Your task to perform on an android device: turn on location history Image 0: 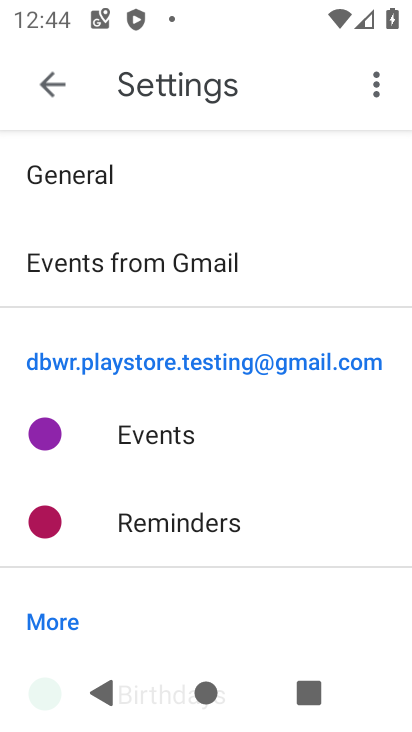
Step 0: press home button
Your task to perform on an android device: turn on location history Image 1: 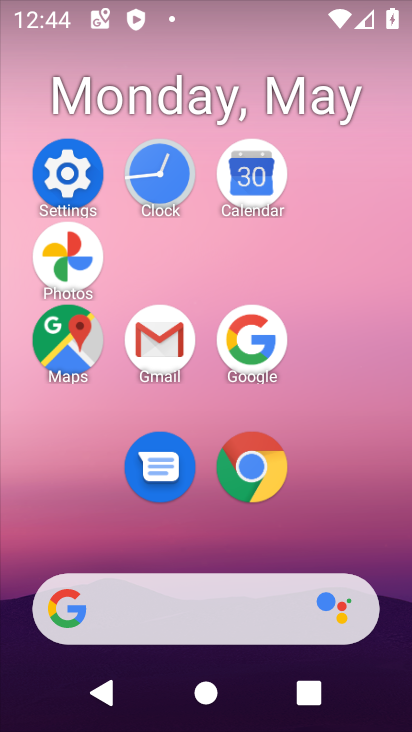
Step 1: click (43, 181)
Your task to perform on an android device: turn on location history Image 2: 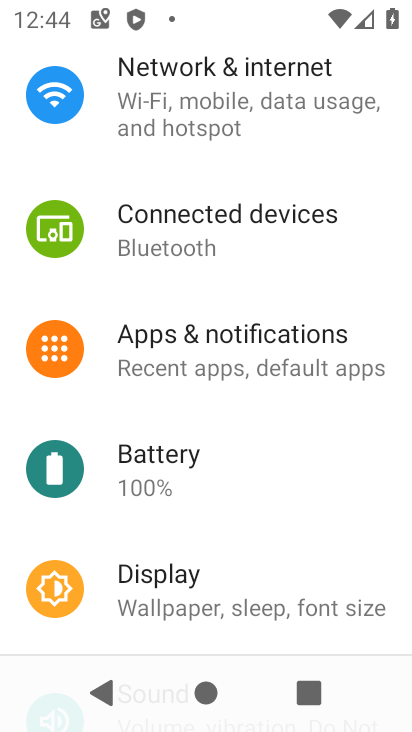
Step 2: drag from (240, 563) to (209, 171)
Your task to perform on an android device: turn on location history Image 3: 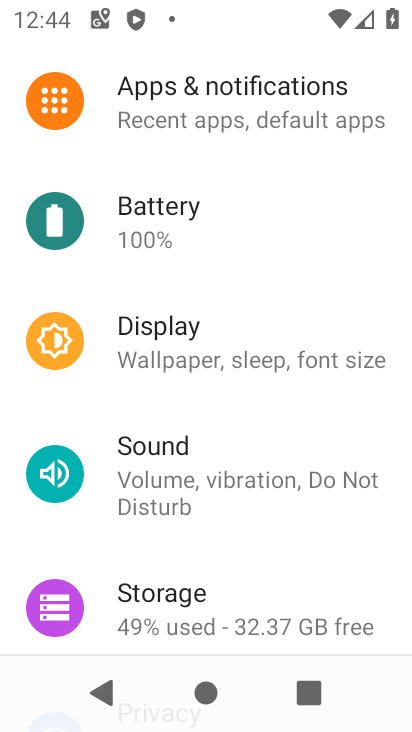
Step 3: drag from (244, 541) to (231, 147)
Your task to perform on an android device: turn on location history Image 4: 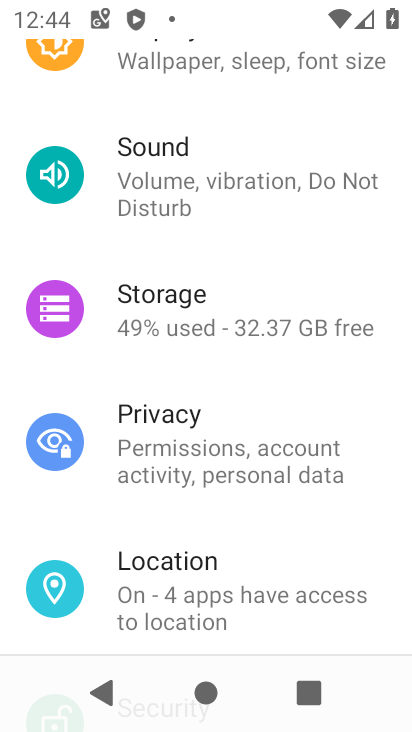
Step 4: click (208, 559)
Your task to perform on an android device: turn on location history Image 5: 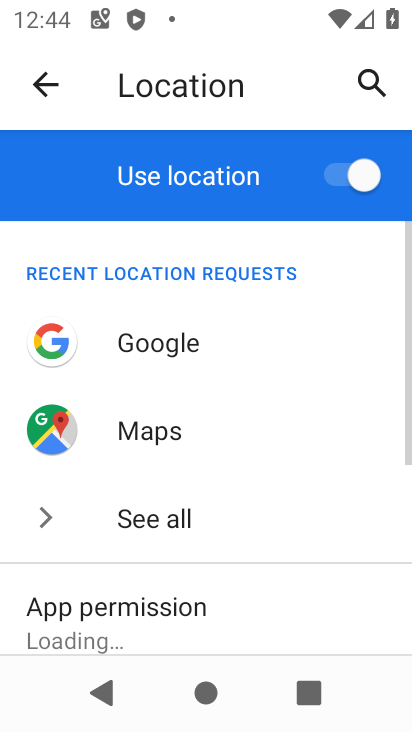
Step 5: drag from (286, 577) to (274, 154)
Your task to perform on an android device: turn on location history Image 6: 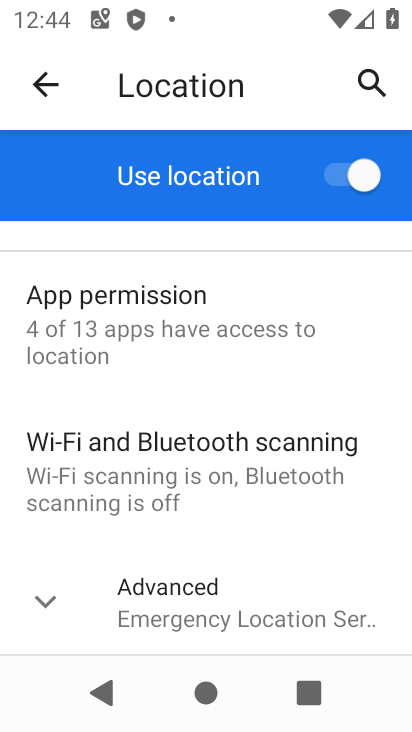
Step 6: click (257, 584)
Your task to perform on an android device: turn on location history Image 7: 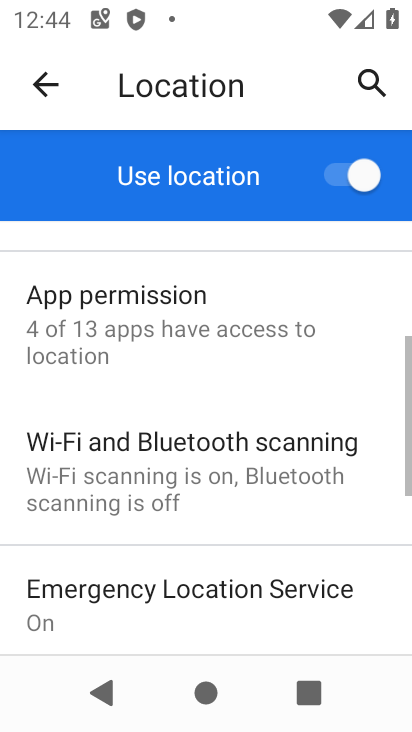
Step 7: drag from (257, 584) to (191, 180)
Your task to perform on an android device: turn on location history Image 8: 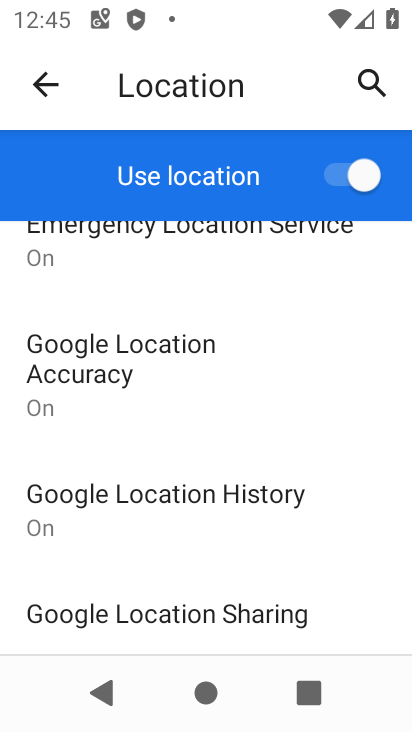
Step 8: click (263, 493)
Your task to perform on an android device: turn on location history Image 9: 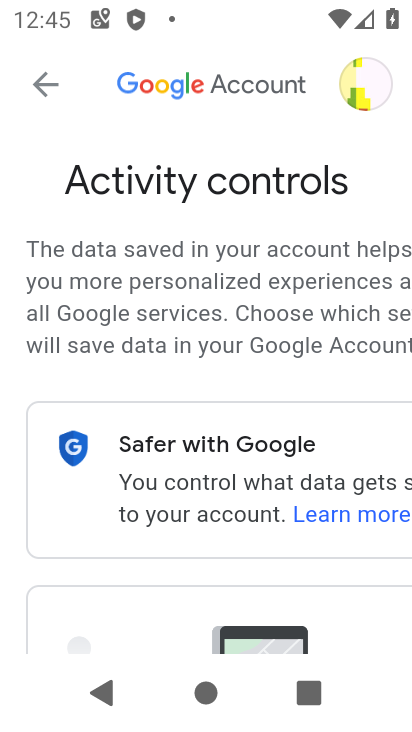
Step 9: task complete